Your task to perform on an android device: Go to calendar. Show me events next week Image 0: 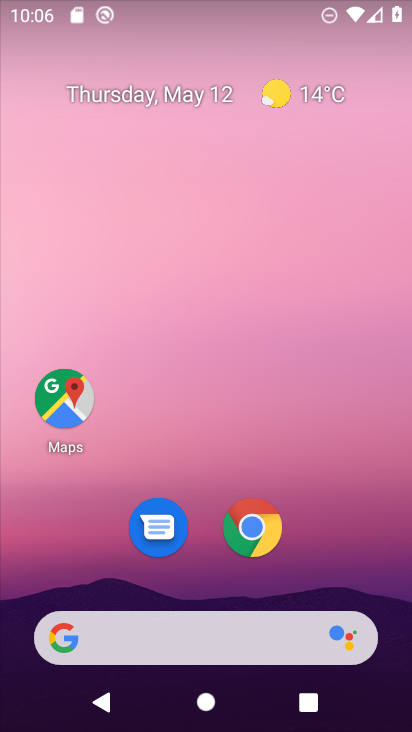
Step 0: drag from (343, 575) to (336, 239)
Your task to perform on an android device: Go to calendar. Show me events next week Image 1: 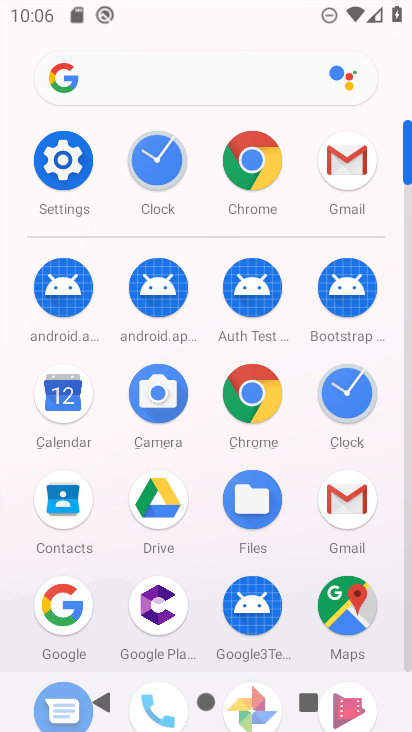
Step 1: click (40, 423)
Your task to perform on an android device: Go to calendar. Show me events next week Image 2: 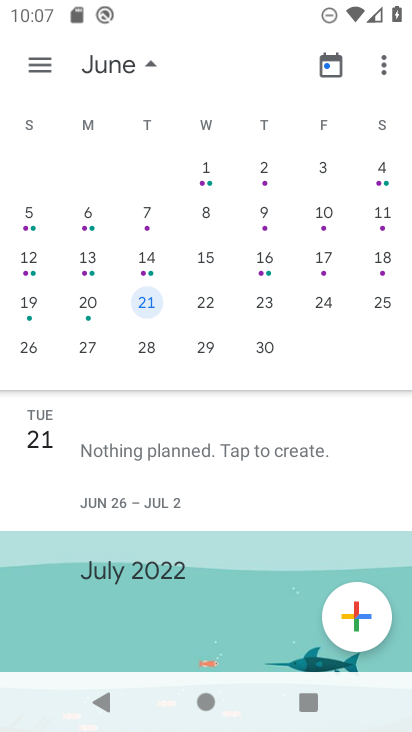
Step 2: task complete